Your task to perform on an android device: Open CNN.com Image 0: 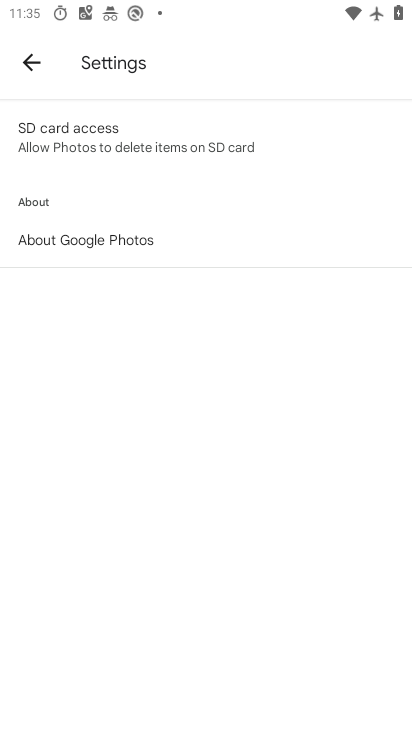
Step 0: press back button
Your task to perform on an android device: Open CNN.com Image 1: 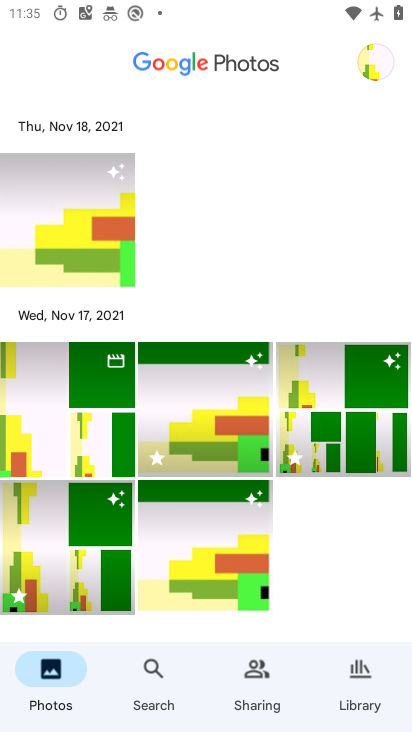
Step 1: press home button
Your task to perform on an android device: Open CNN.com Image 2: 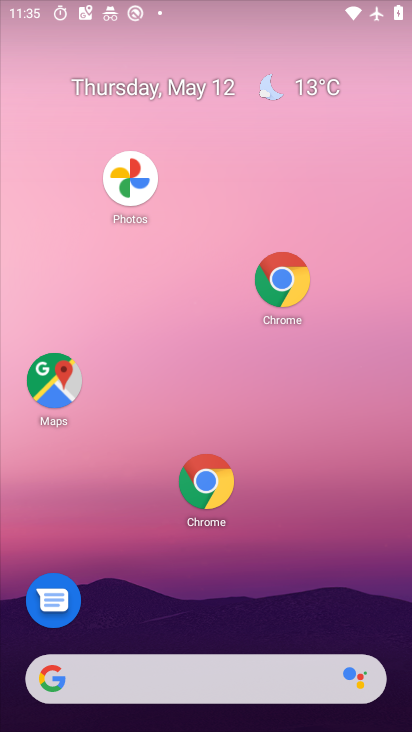
Step 2: drag from (317, 591) to (165, 129)
Your task to perform on an android device: Open CNN.com Image 3: 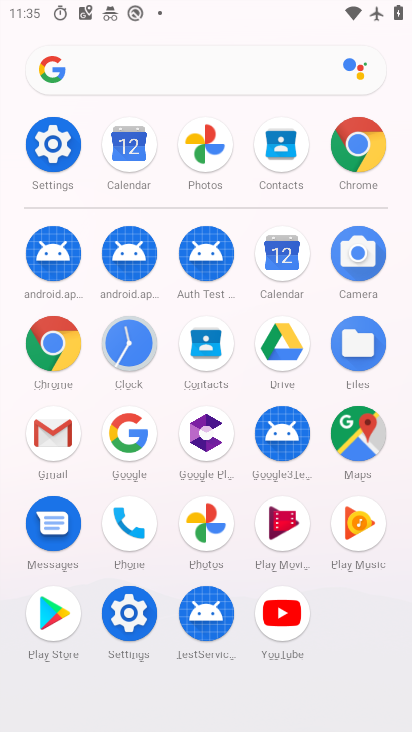
Step 3: click (363, 144)
Your task to perform on an android device: Open CNN.com Image 4: 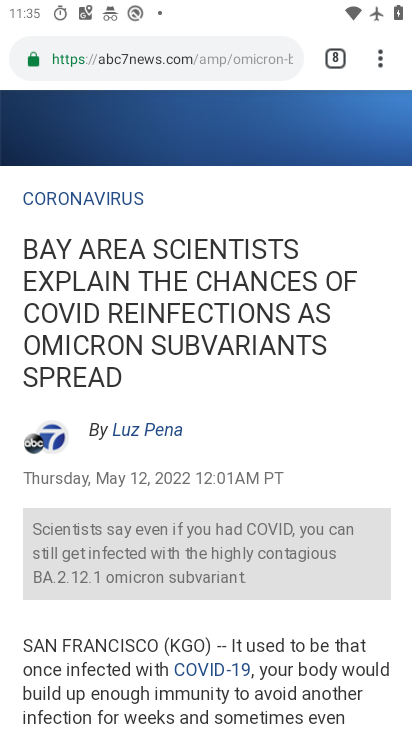
Step 4: click (379, 57)
Your task to perform on an android device: Open CNN.com Image 5: 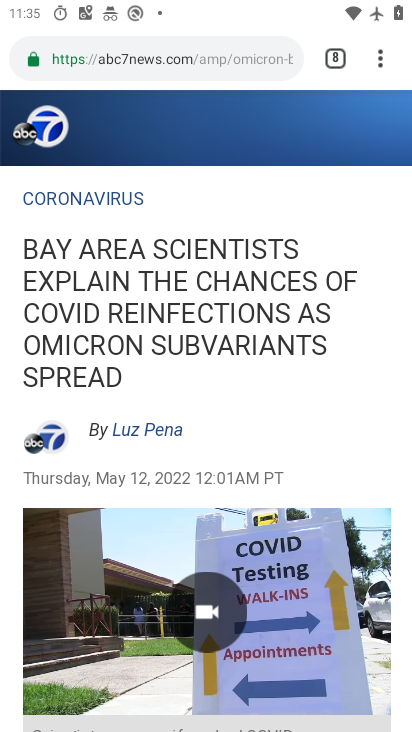
Step 5: click (379, 57)
Your task to perform on an android device: Open CNN.com Image 6: 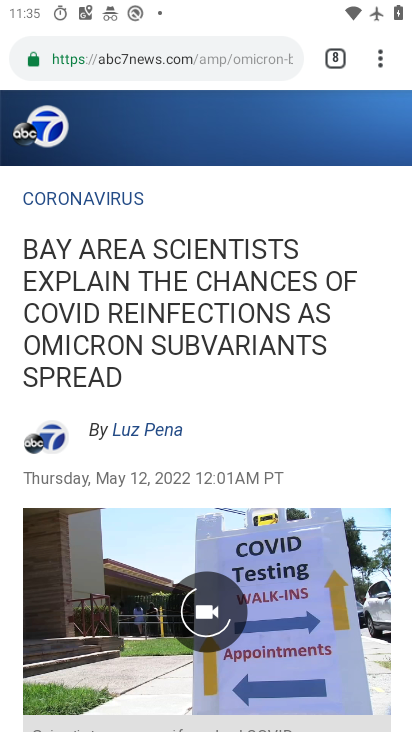
Step 6: click (385, 51)
Your task to perform on an android device: Open CNN.com Image 7: 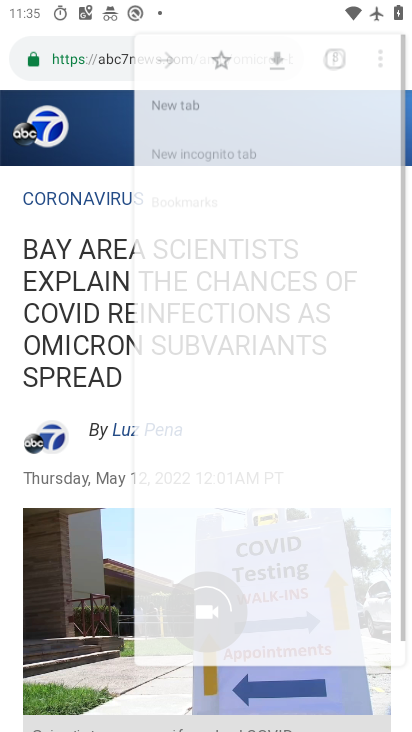
Step 7: click (380, 53)
Your task to perform on an android device: Open CNN.com Image 8: 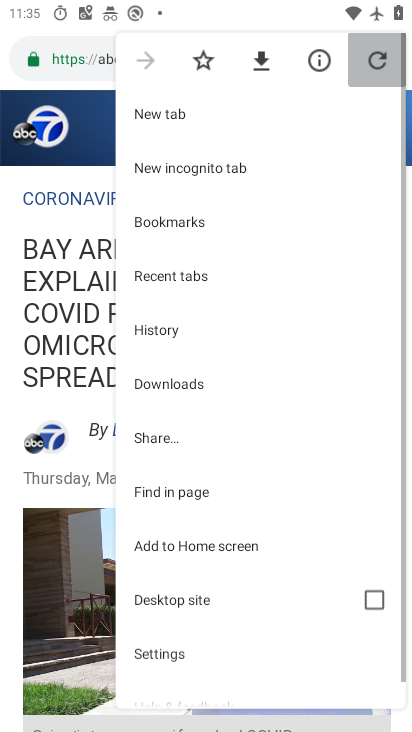
Step 8: click (380, 53)
Your task to perform on an android device: Open CNN.com Image 9: 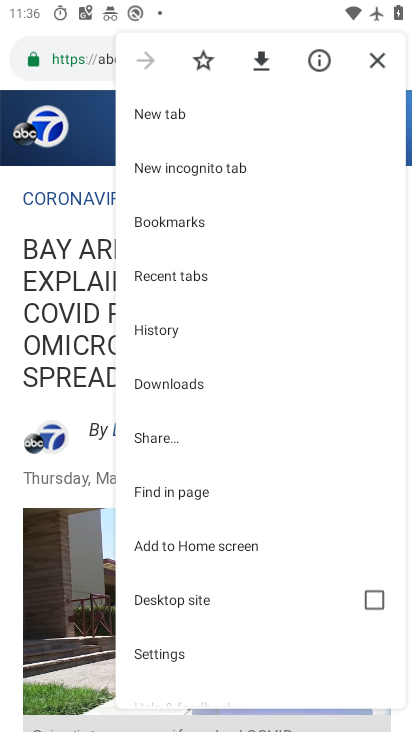
Step 9: click (147, 109)
Your task to perform on an android device: Open CNN.com Image 10: 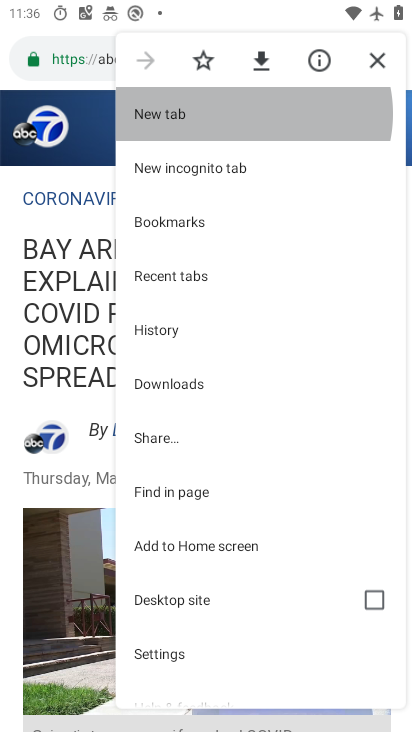
Step 10: click (149, 108)
Your task to perform on an android device: Open CNN.com Image 11: 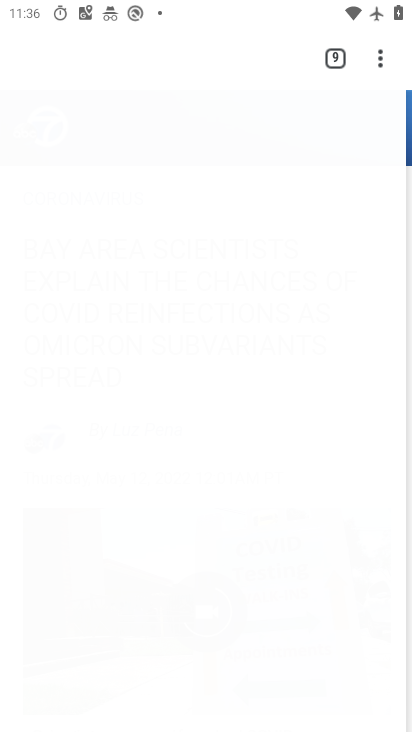
Step 11: click (148, 106)
Your task to perform on an android device: Open CNN.com Image 12: 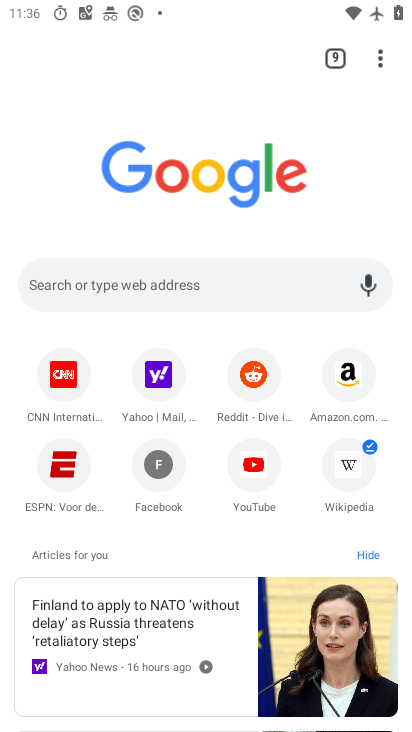
Step 12: click (78, 368)
Your task to perform on an android device: Open CNN.com Image 13: 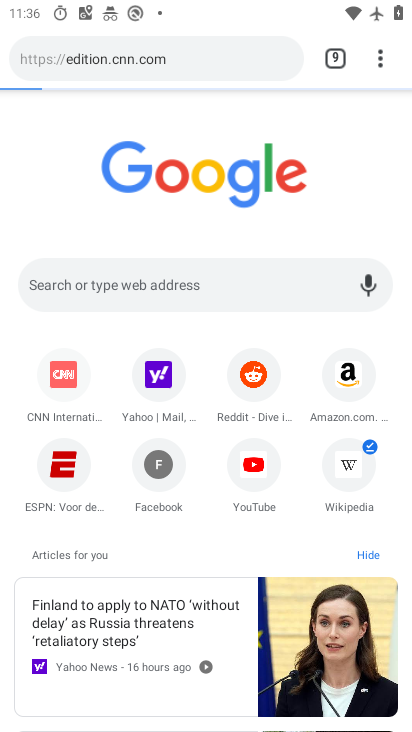
Step 13: click (73, 375)
Your task to perform on an android device: Open CNN.com Image 14: 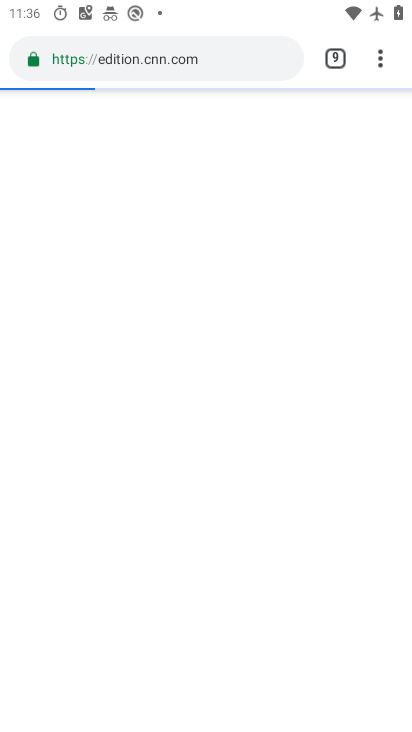
Step 14: click (58, 374)
Your task to perform on an android device: Open CNN.com Image 15: 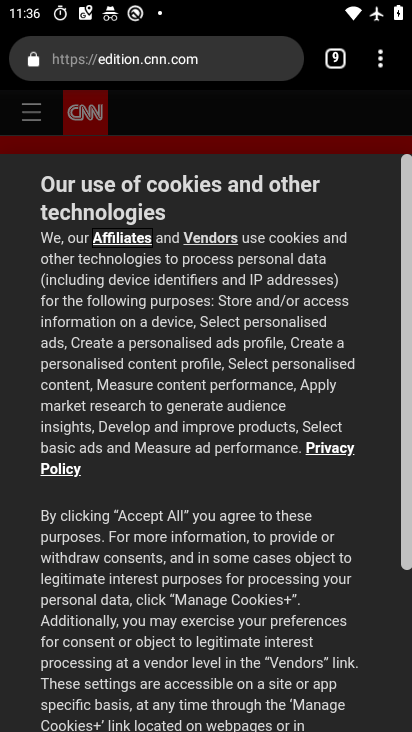
Step 15: task complete